Your task to perform on an android device: change notifications settings Image 0: 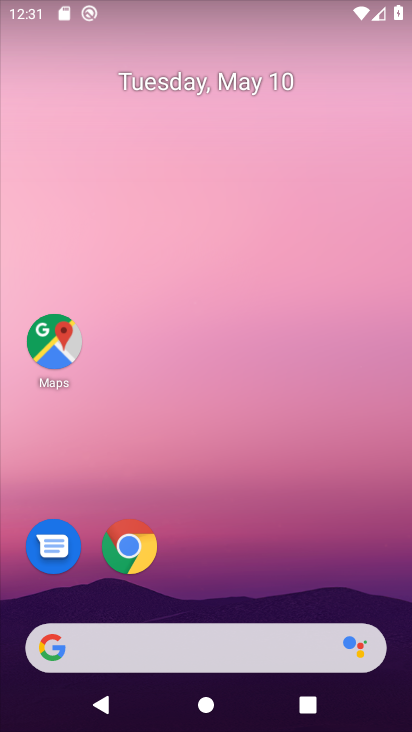
Step 0: drag from (297, 581) to (283, 240)
Your task to perform on an android device: change notifications settings Image 1: 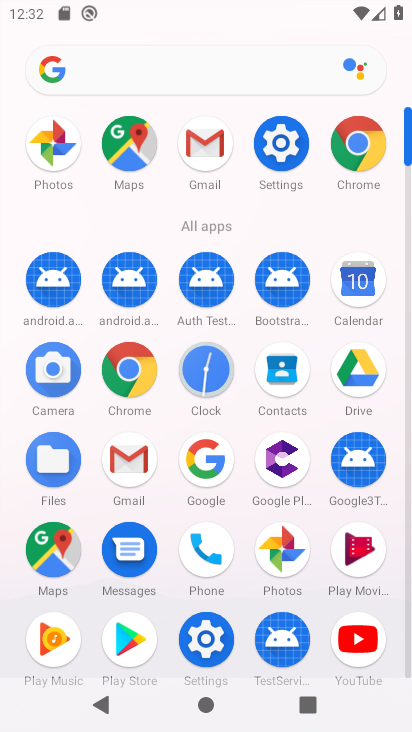
Step 1: click (207, 641)
Your task to perform on an android device: change notifications settings Image 2: 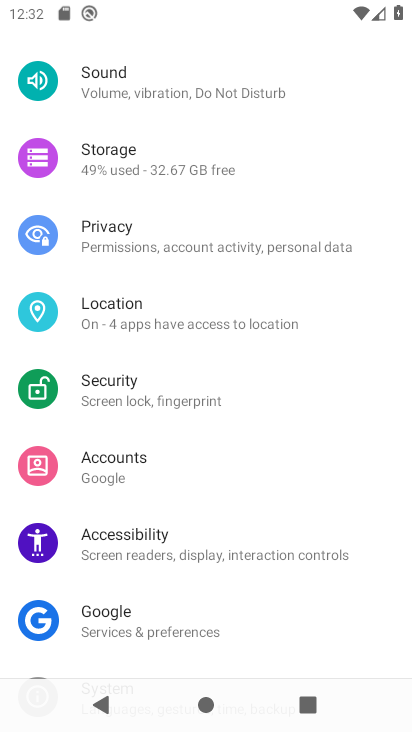
Step 2: drag from (227, 160) to (220, 727)
Your task to perform on an android device: change notifications settings Image 3: 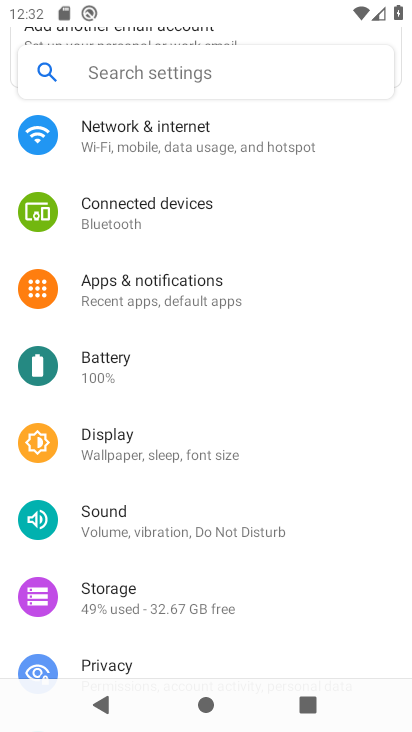
Step 3: drag from (249, 572) to (242, 719)
Your task to perform on an android device: change notifications settings Image 4: 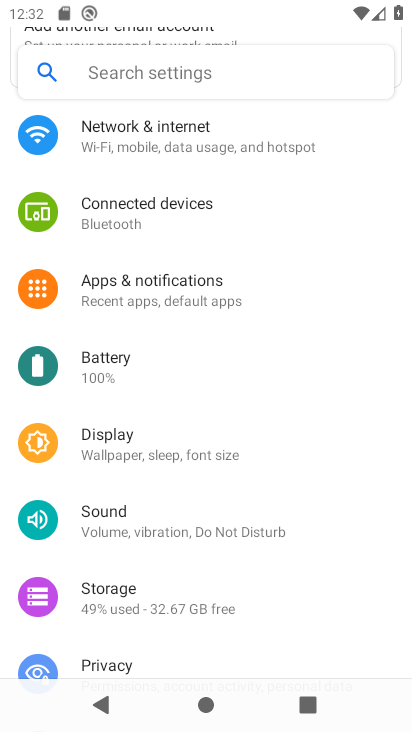
Step 4: click (208, 302)
Your task to perform on an android device: change notifications settings Image 5: 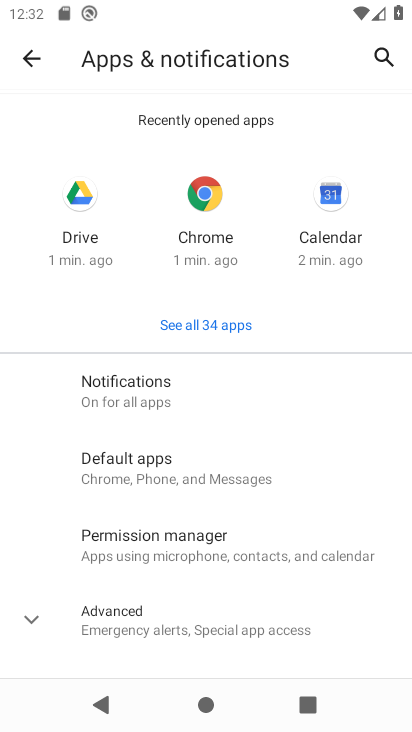
Step 5: click (185, 411)
Your task to perform on an android device: change notifications settings Image 6: 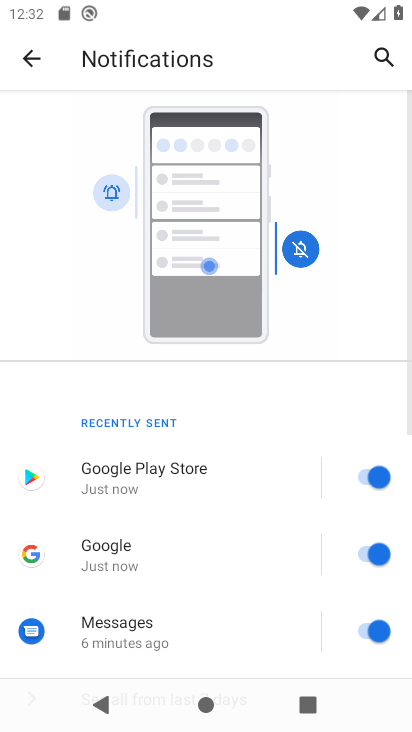
Step 6: drag from (212, 646) to (192, 232)
Your task to perform on an android device: change notifications settings Image 7: 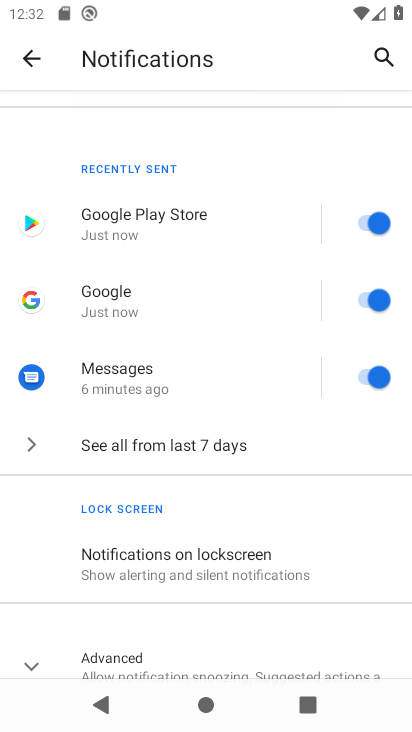
Step 7: drag from (232, 484) to (229, 236)
Your task to perform on an android device: change notifications settings Image 8: 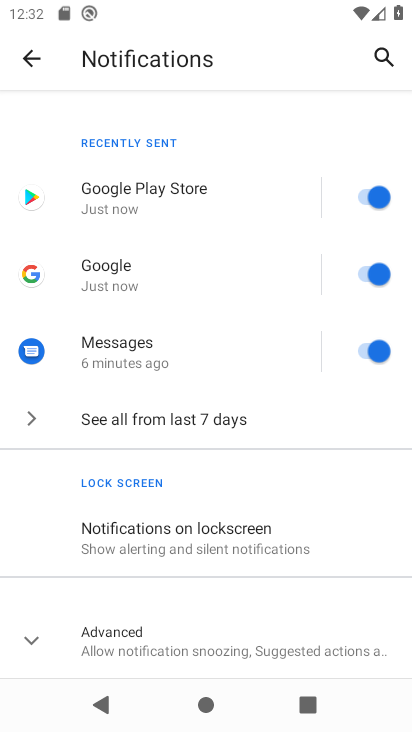
Step 8: click (380, 269)
Your task to perform on an android device: change notifications settings Image 9: 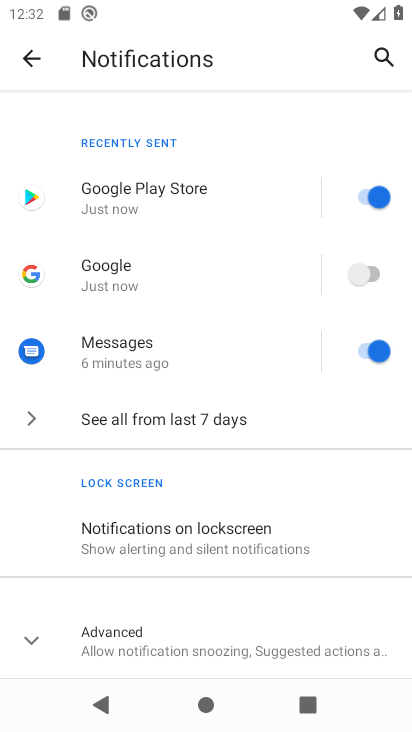
Step 9: click (394, 206)
Your task to perform on an android device: change notifications settings Image 10: 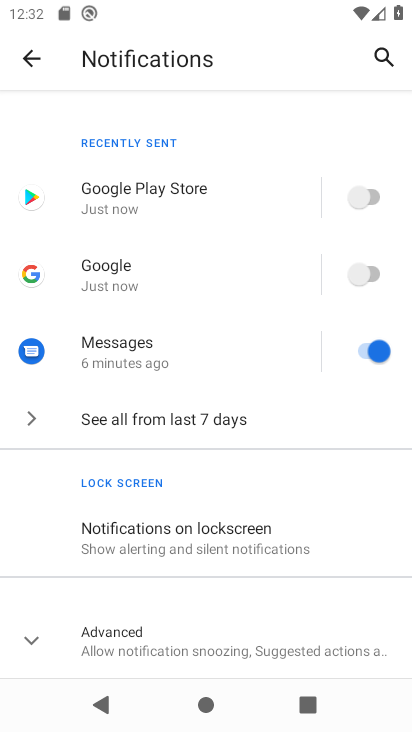
Step 10: click (145, 646)
Your task to perform on an android device: change notifications settings Image 11: 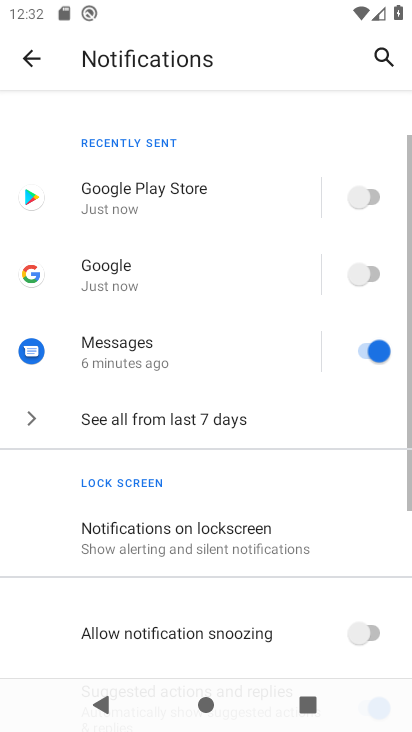
Step 11: drag from (214, 595) to (255, 178)
Your task to perform on an android device: change notifications settings Image 12: 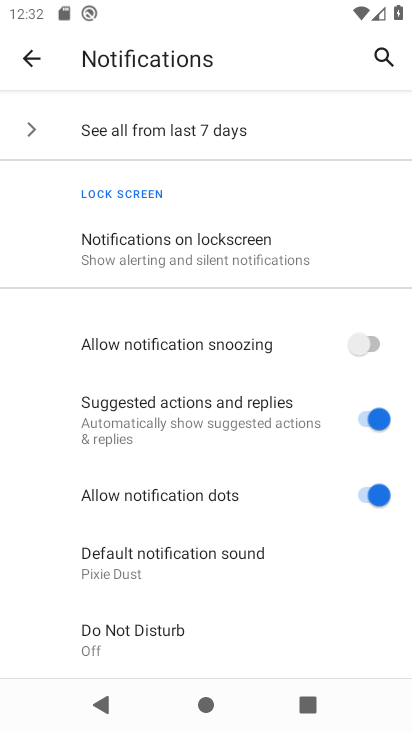
Step 12: click (390, 422)
Your task to perform on an android device: change notifications settings Image 13: 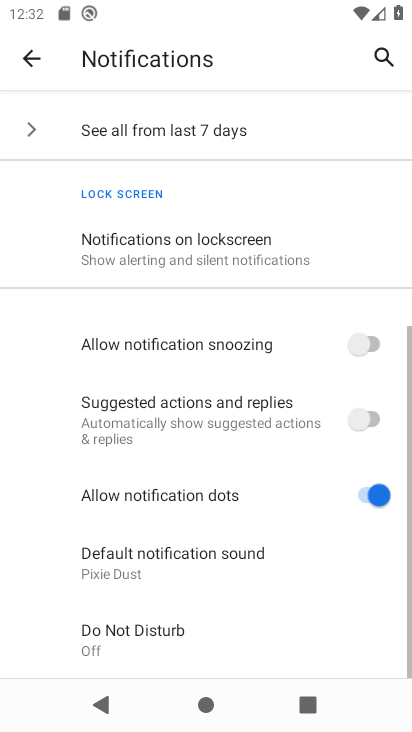
Step 13: click (331, 328)
Your task to perform on an android device: change notifications settings Image 14: 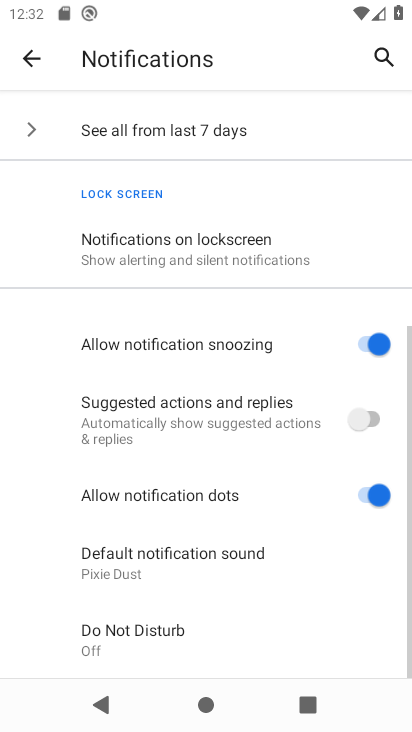
Step 14: task complete